Your task to perform on an android device: Go to accessibility settings Image 0: 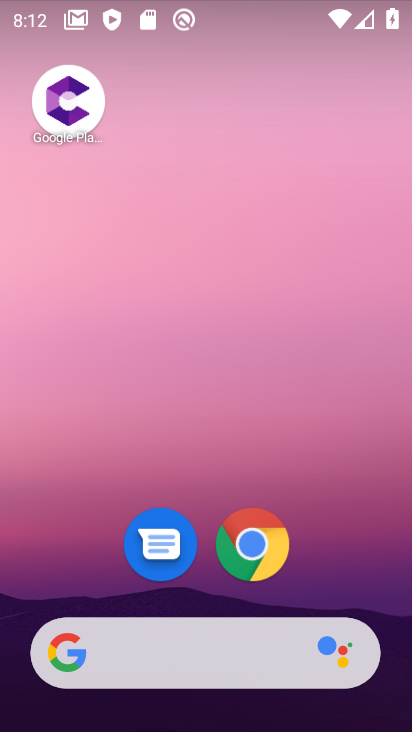
Step 0: drag from (319, 595) to (405, 100)
Your task to perform on an android device: Go to accessibility settings Image 1: 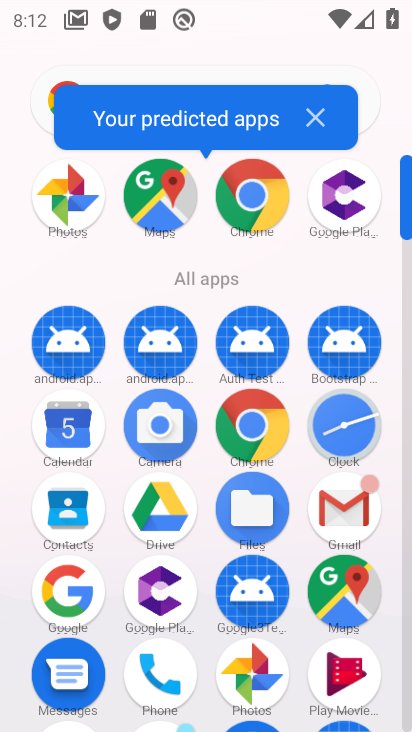
Step 1: click (405, 563)
Your task to perform on an android device: Go to accessibility settings Image 2: 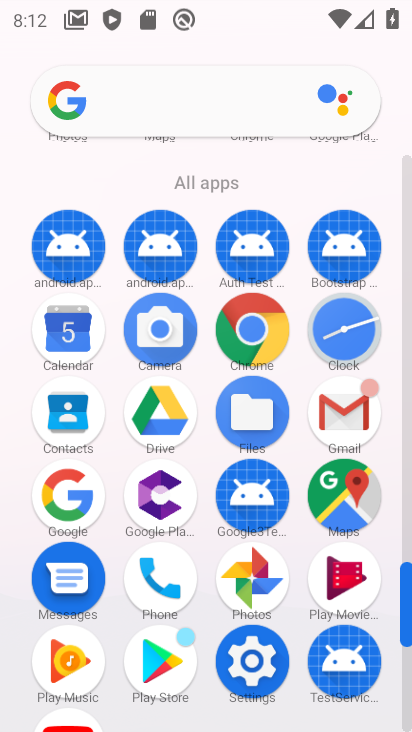
Step 2: click (242, 654)
Your task to perform on an android device: Go to accessibility settings Image 3: 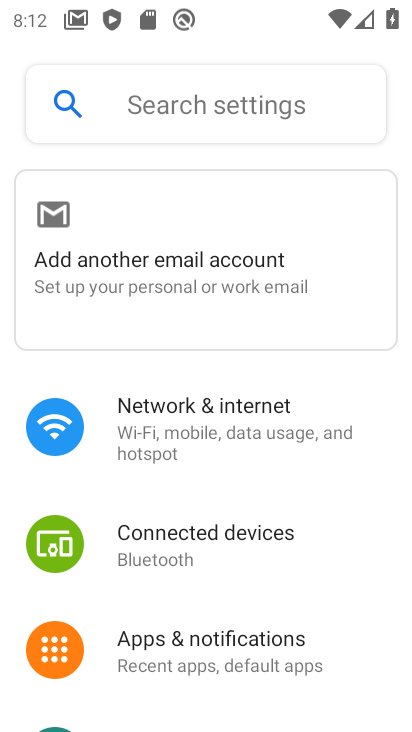
Step 3: drag from (205, 577) to (253, 96)
Your task to perform on an android device: Go to accessibility settings Image 4: 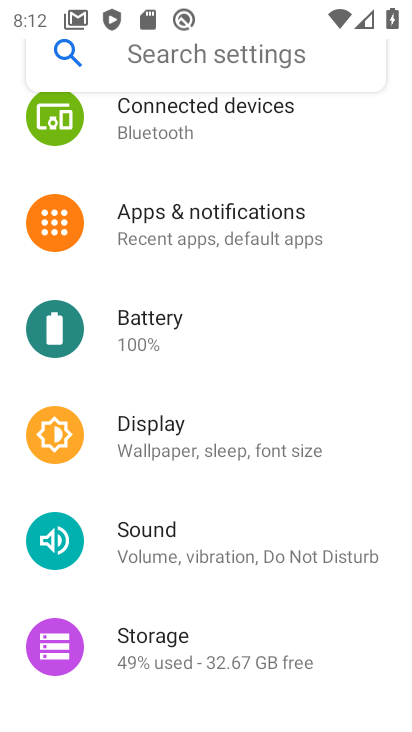
Step 4: drag from (222, 635) to (266, 346)
Your task to perform on an android device: Go to accessibility settings Image 5: 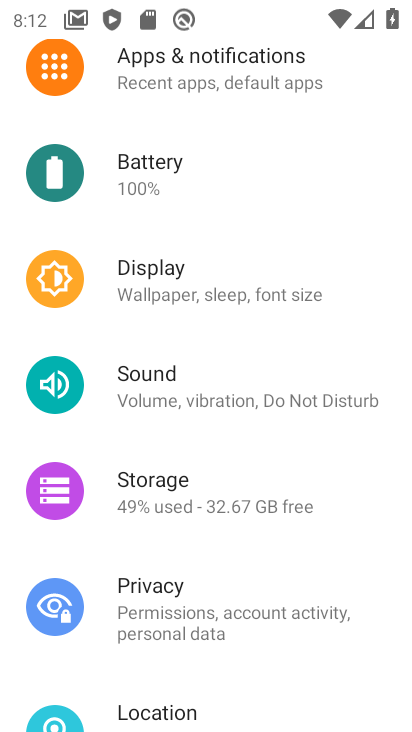
Step 5: drag from (216, 599) to (256, 302)
Your task to perform on an android device: Go to accessibility settings Image 6: 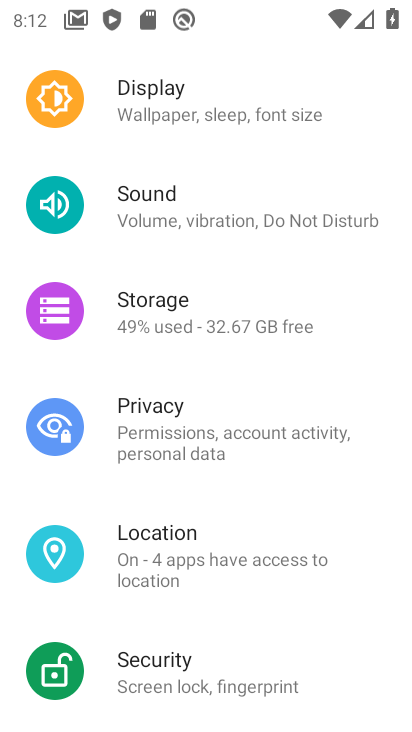
Step 6: drag from (247, 542) to (268, 155)
Your task to perform on an android device: Go to accessibility settings Image 7: 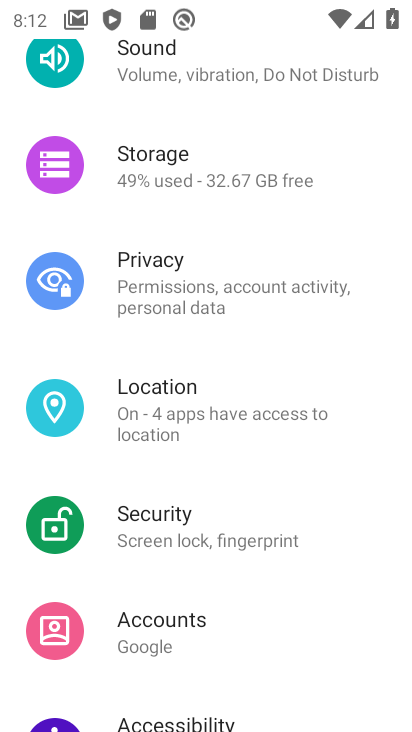
Step 7: click (207, 720)
Your task to perform on an android device: Go to accessibility settings Image 8: 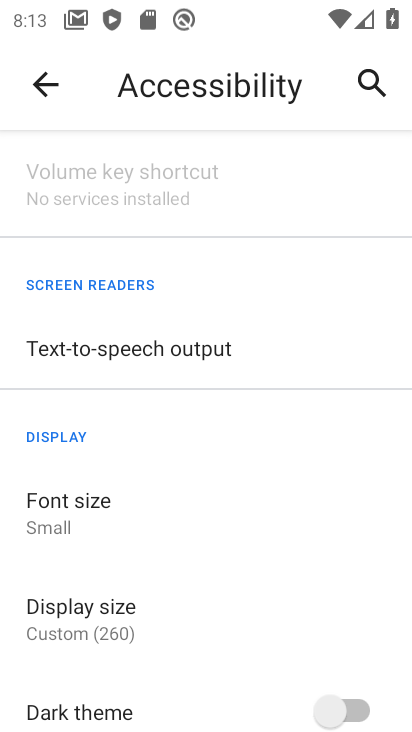
Step 8: task complete